Your task to perform on an android device: Is it going to rain this weekend? Image 0: 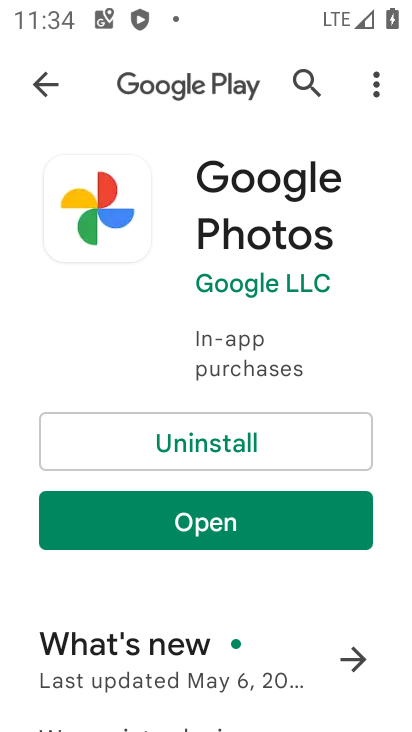
Step 0: press home button
Your task to perform on an android device: Is it going to rain this weekend? Image 1: 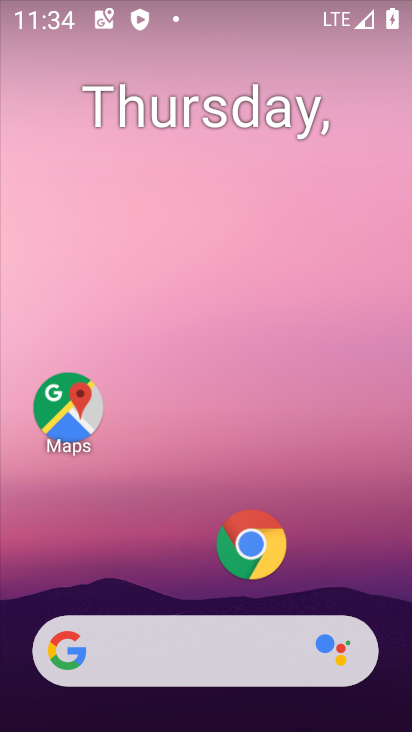
Step 1: click (219, 673)
Your task to perform on an android device: Is it going to rain this weekend? Image 2: 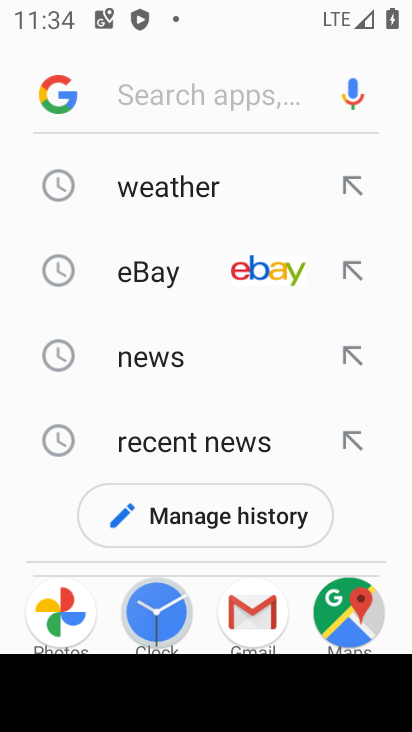
Step 2: click (158, 193)
Your task to perform on an android device: Is it going to rain this weekend? Image 3: 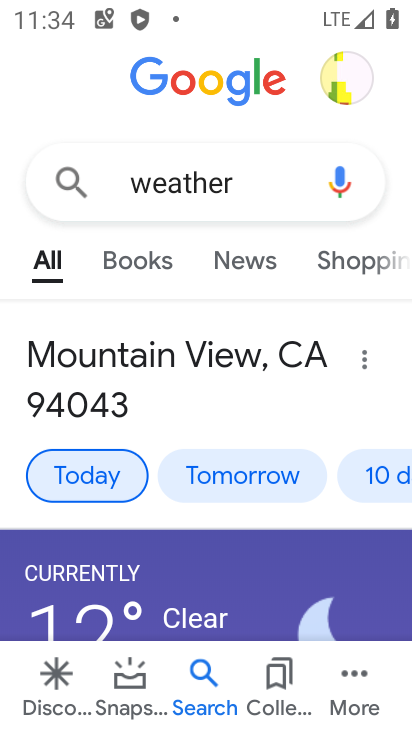
Step 3: click (398, 469)
Your task to perform on an android device: Is it going to rain this weekend? Image 4: 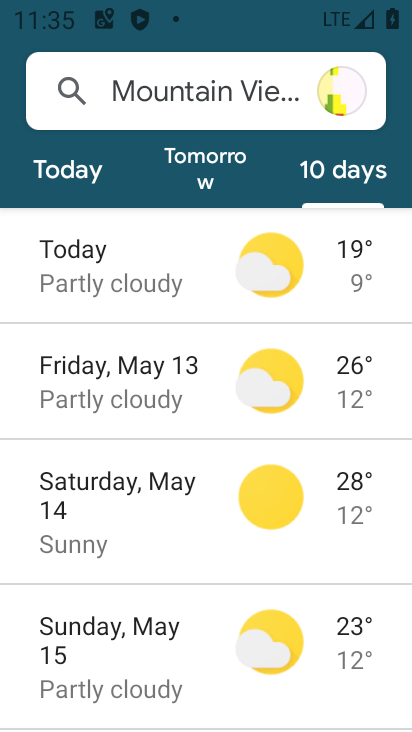
Step 4: task complete